Your task to perform on an android device: add a label to a message in the gmail app Image 0: 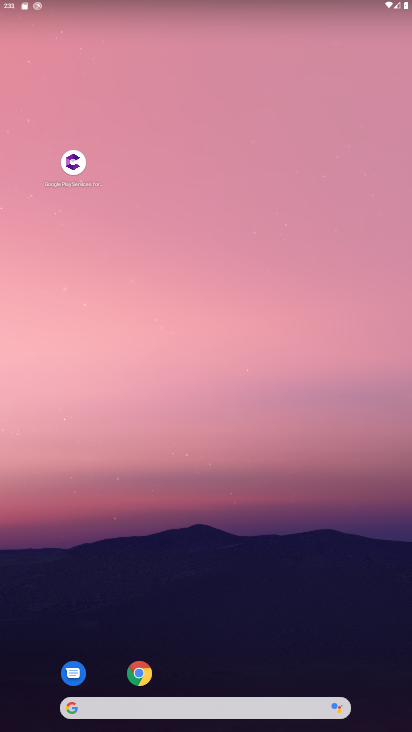
Step 0: drag from (245, 688) to (313, 232)
Your task to perform on an android device: add a label to a message in the gmail app Image 1: 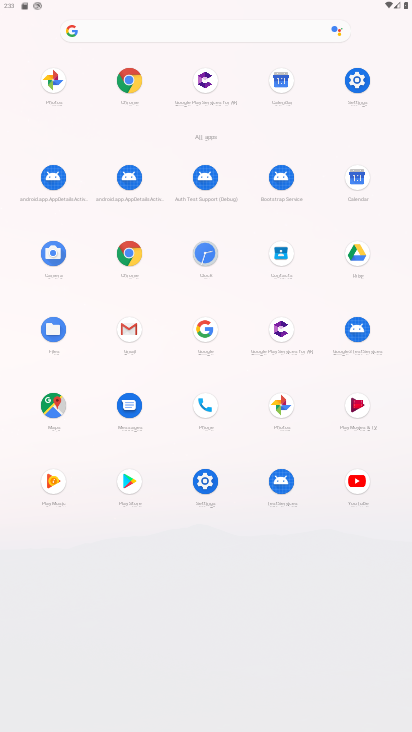
Step 1: click (123, 320)
Your task to perform on an android device: add a label to a message in the gmail app Image 2: 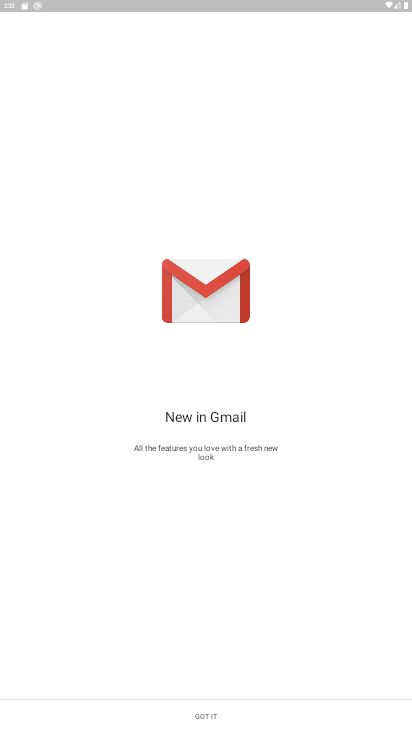
Step 2: click (228, 722)
Your task to perform on an android device: add a label to a message in the gmail app Image 3: 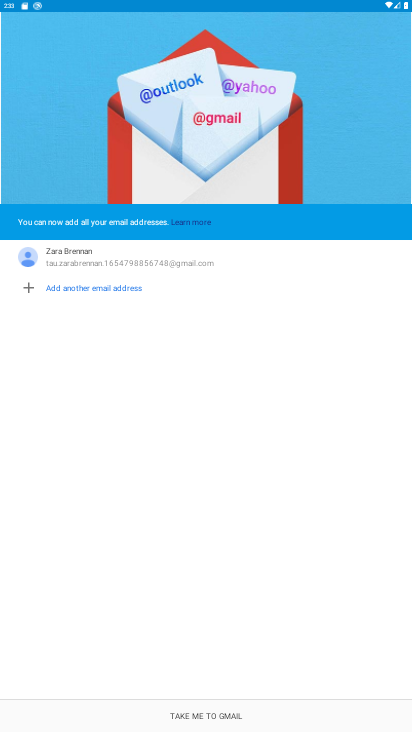
Step 3: click (228, 722)
Your task to perform on an android device: add a label to a message in the gmail app Image 4: 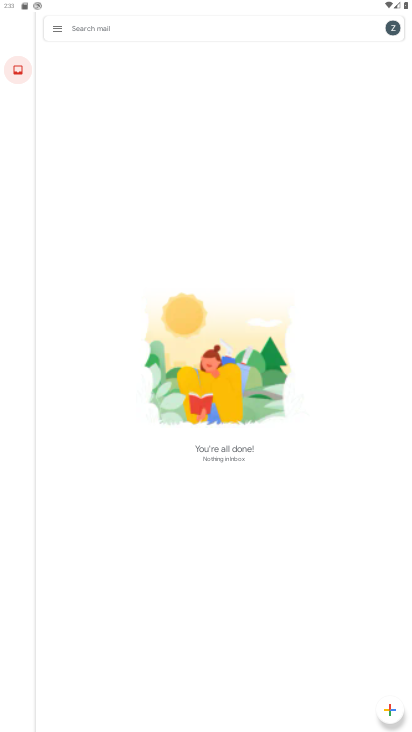
Step 4: click (52, 31)
Your task to perform on an android device: add a label to a message in the gmail app Image 5: 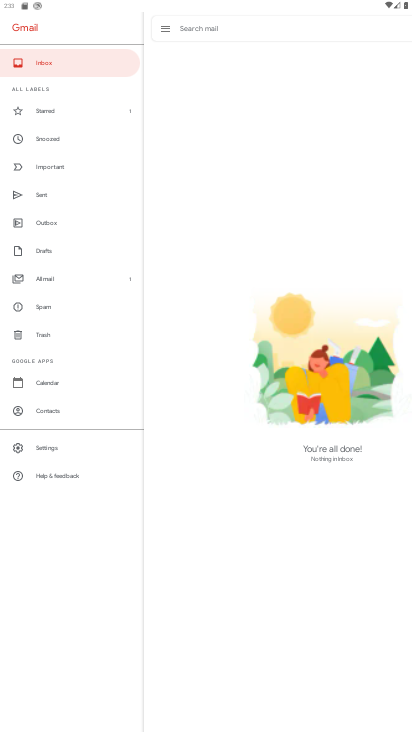
Step 5: click (60, 278)
Your task to perform on an android device: add a label to a message in the gmail app Image 6: 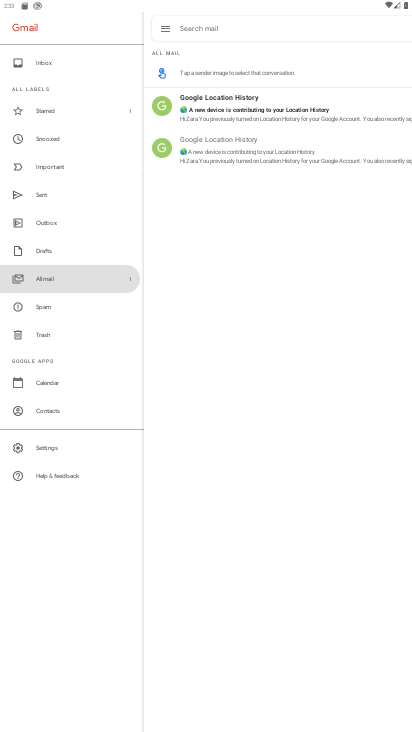
Step 6: click (215, 117)
Your task to perform on an android device: add a label to a message in the gmail app Image 7: 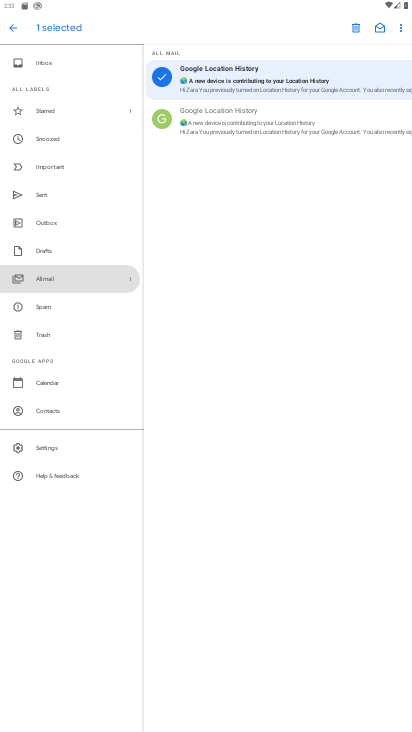
Step 7: click (394, 27)
Your task to perform on an android device: add a label to a message in the gmail app Image 8: 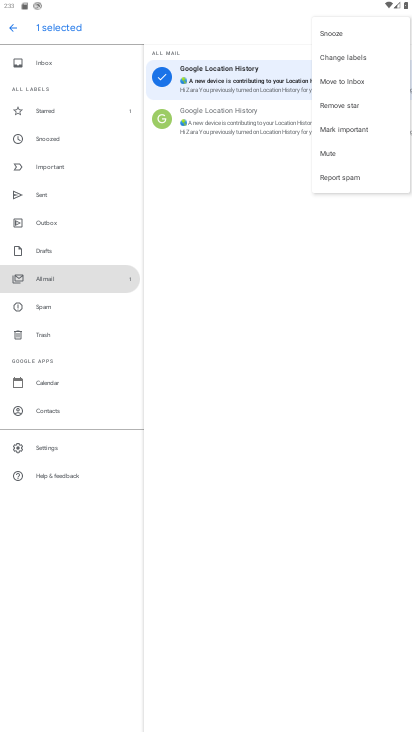
Step 8: click (382, 51)
Your task to perform on an android device: add a label to a message in the gmail app Image 9: 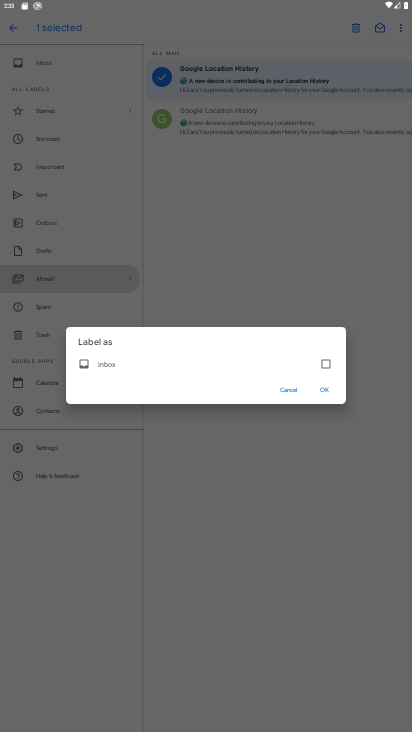
Step 9: click (318, 359)
Your task to perform on an android device: add a label to a message in the gmail app Image 10: 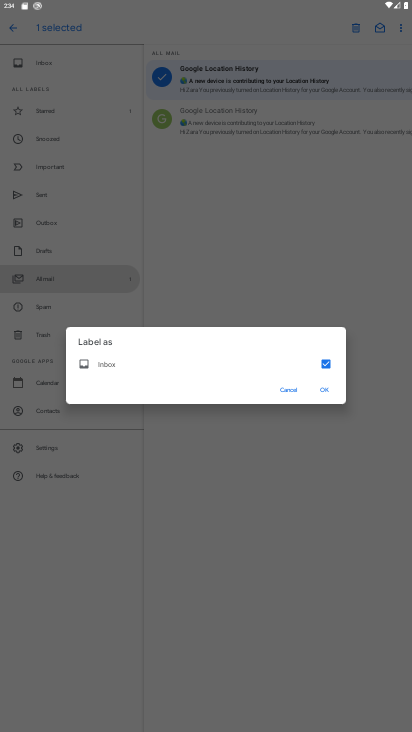
Step 10: click (325, 383)
Your task to perform on an android device: add a label to a message in the gmail app Image 11: 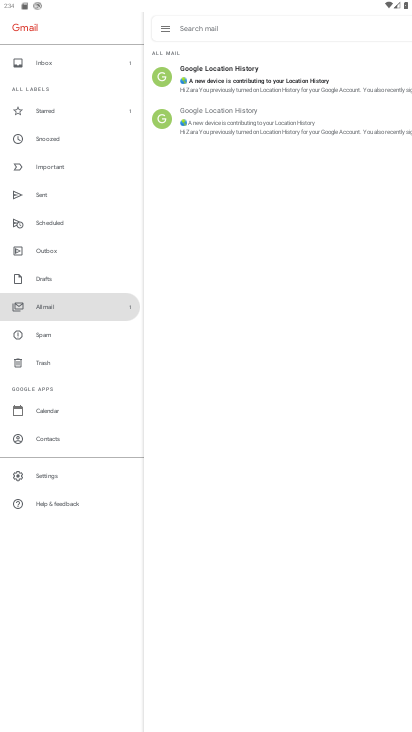
Step 11: task complete